Your task to perform on an android device: Open Reddit.com Image 0: 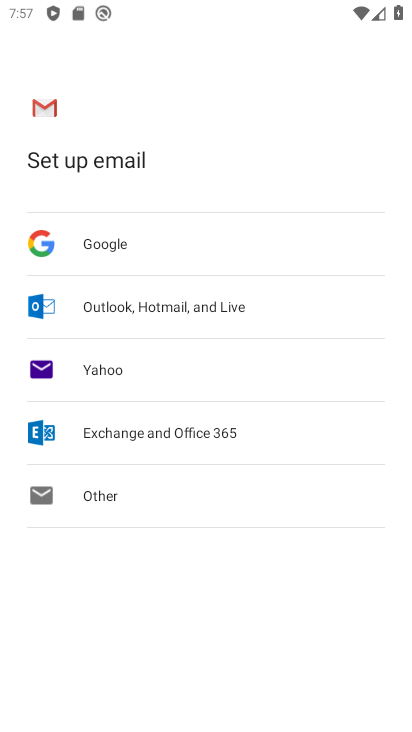
Step 0: press home button
Your task to perform on an android device: Open Reddit.com Image 1: 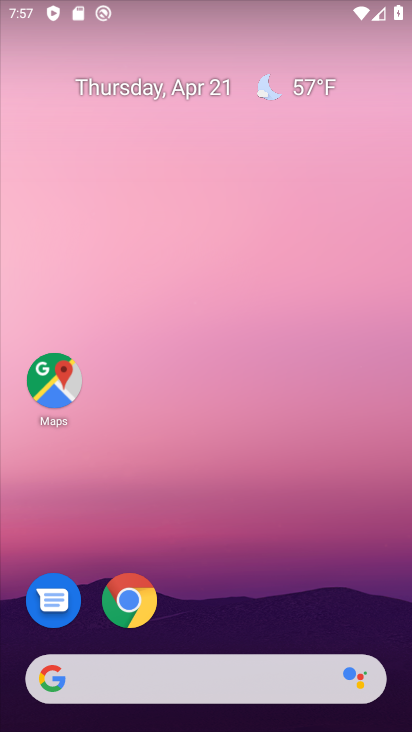
Step 1: click (135, 612)
Your task to perform on an android device: Open Reddit.com Image 2: 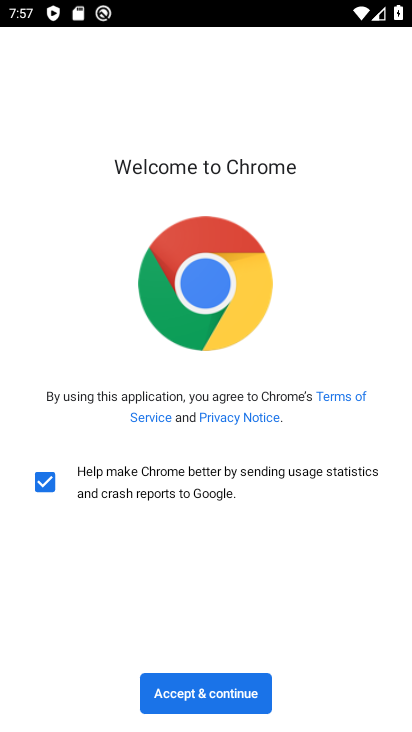
Step 2: click (190, 688)
Your task to perform on an android device: Open Reddit.com Image 3: 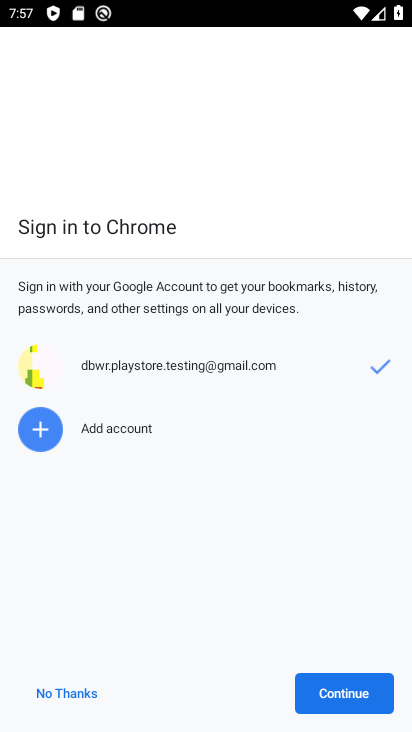
Step 3: click (326, 692)
Your task to perform on an android device: Open Reddit.com Image 4: 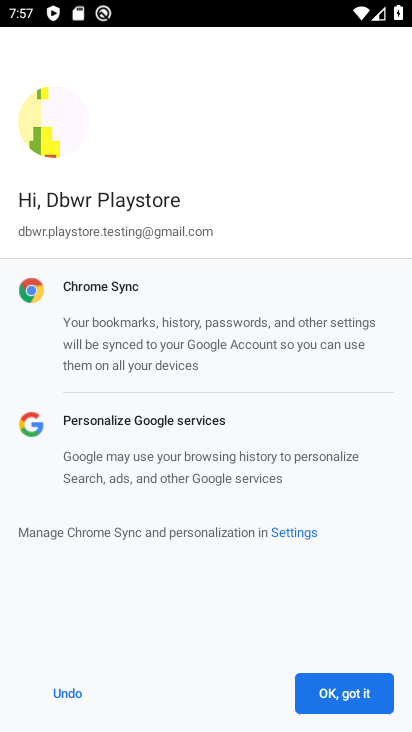
Step 4: click (349, 697)
Your task to perform on an android device: Open Reddit.com Image 5: 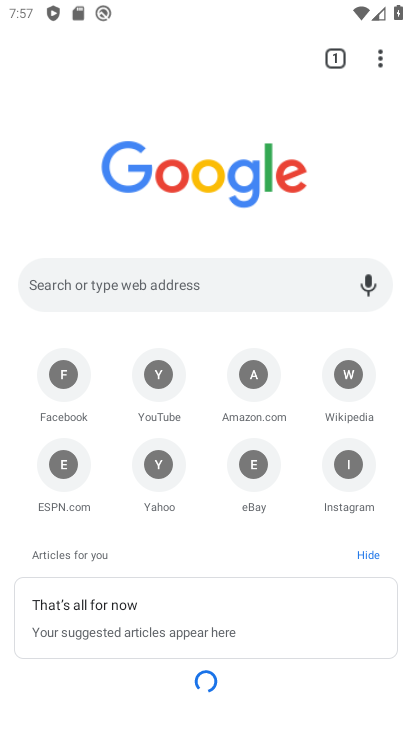
Step 5: click (216, 40)
Your task to perform on an android device: Open Reddit.com Image 6: 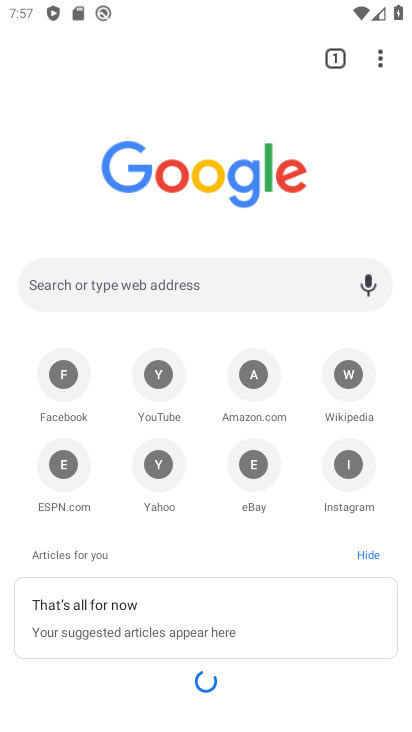
Step 6: click (193, 284)
Your task to perform on an android device: Open Reddit.com Image 7: 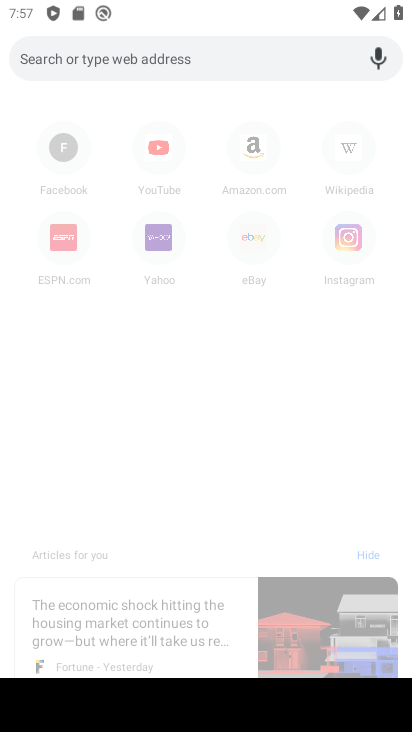
Step 7: type "reddit.com"
Your task to perform on an android device: Open Reddit.com Image 8: 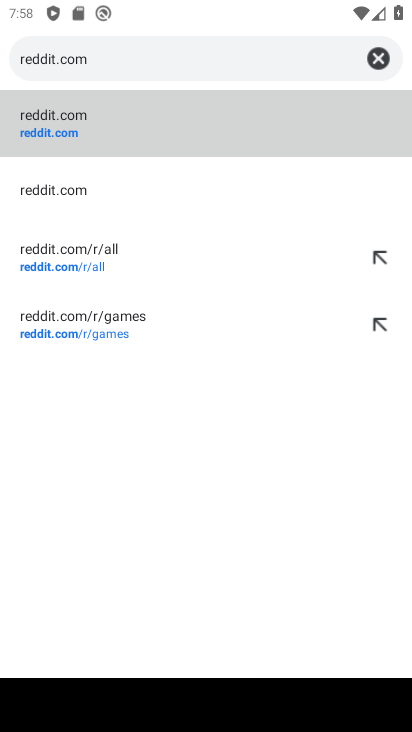
Step 8: click (144, 101)
Your task to perform on an android device: Open Reddit.com Image 9: 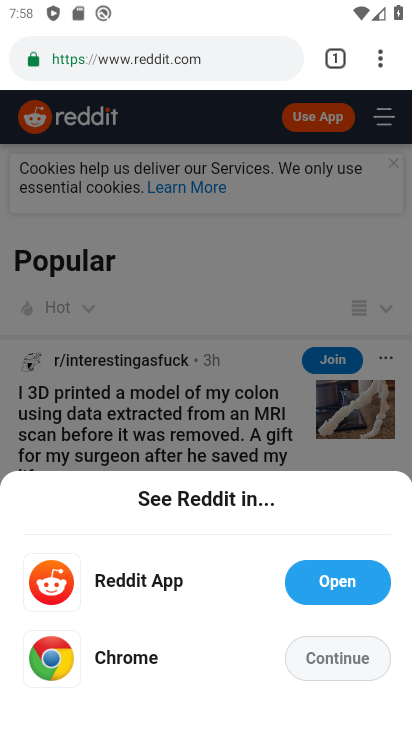
Step 9: click (330, 656)
Your task to perform on an android device: Open Reddit.com Image 10: 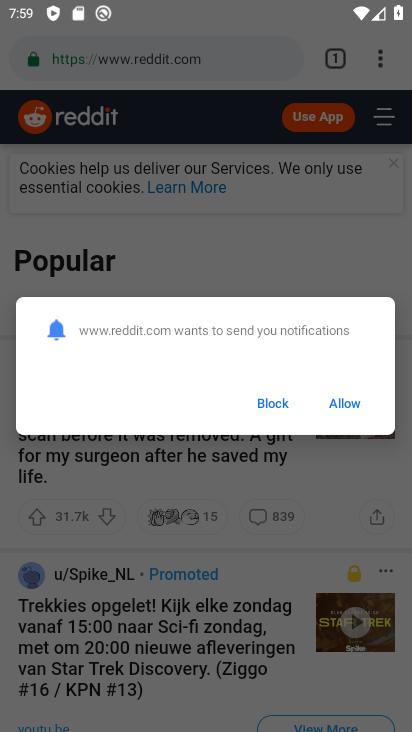
Step 10: click (339, 400)
Your task to perform on an android device: Open Reddit.com Image 11: 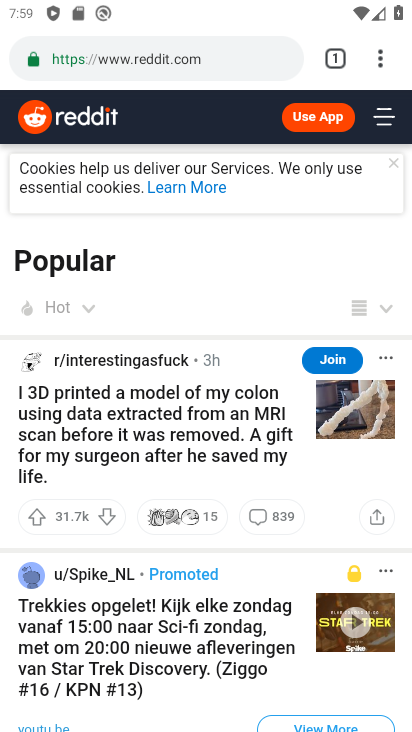
Step 11: task complete